Your task to perform on an android device: find photos in the google photos app Image 0: 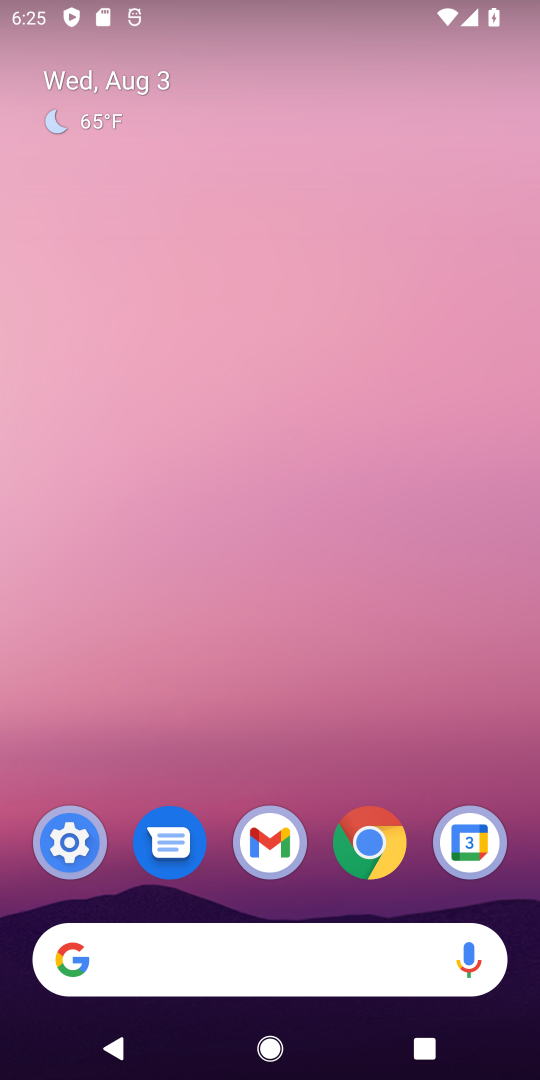
Step 0: drag from (238, 427) to (324, 121)
Your task to perform on an android device: find photos in the google photos app Image 1: 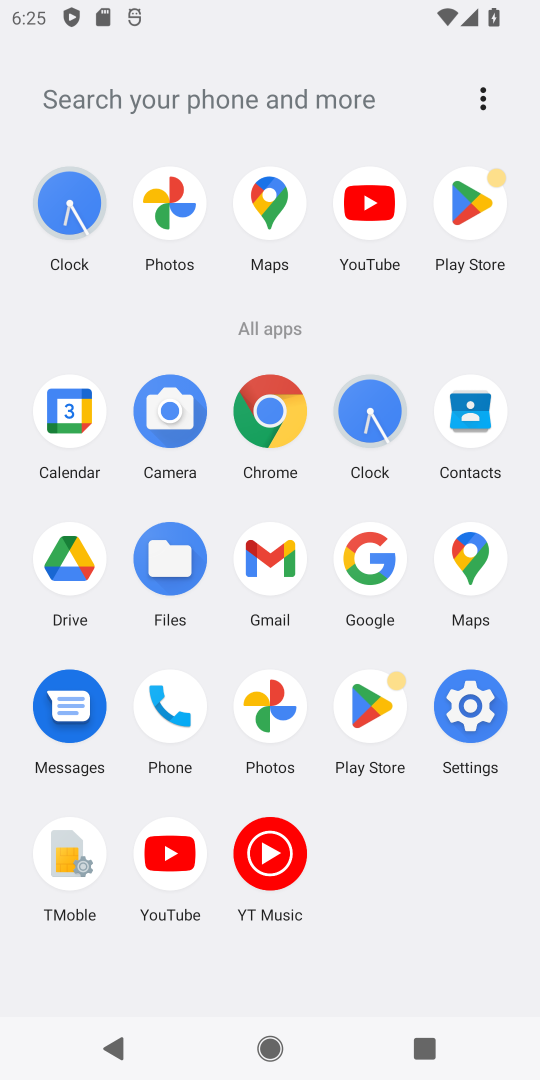
Step 1: click (241, 718)
Your task to perform on an android device: find photos in the google photos app Image 2: 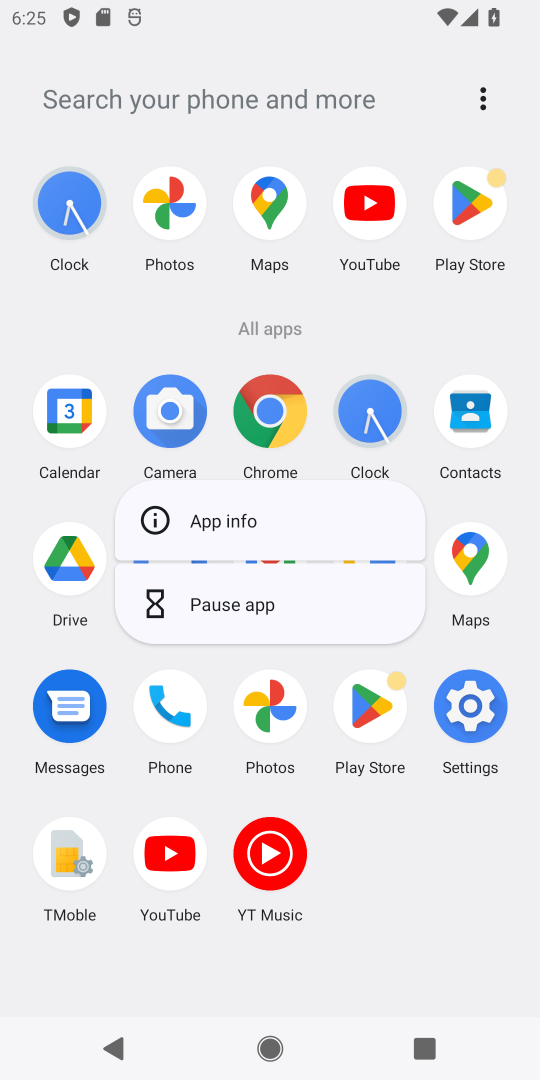
Step 2: click (241, 718)
Your task to perform on an android device: find photos in the google photos app Image 3: 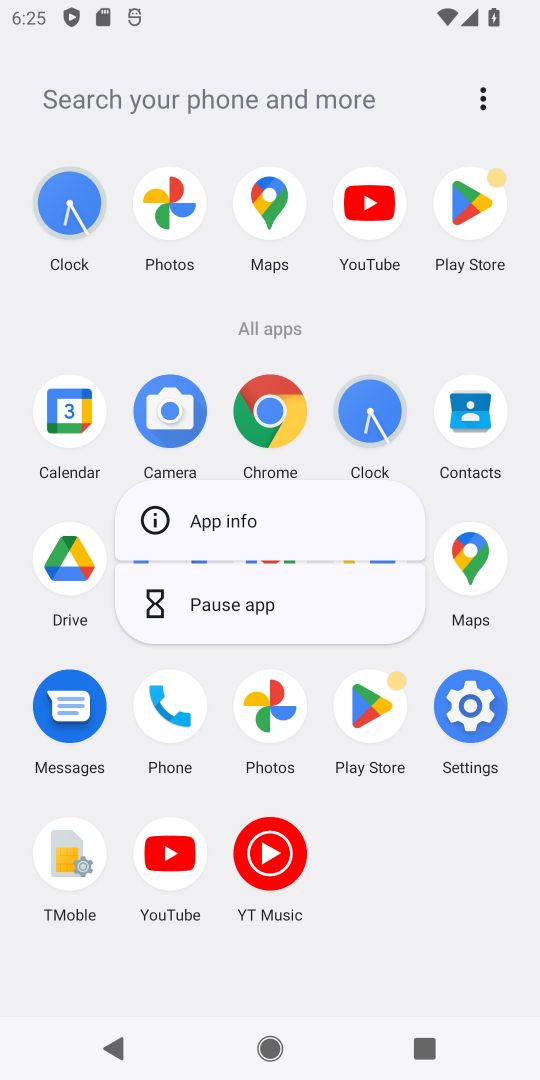
Step 3: click (241, 718)
Your task to perform on an android device: find photos in the google photos app Image 4: 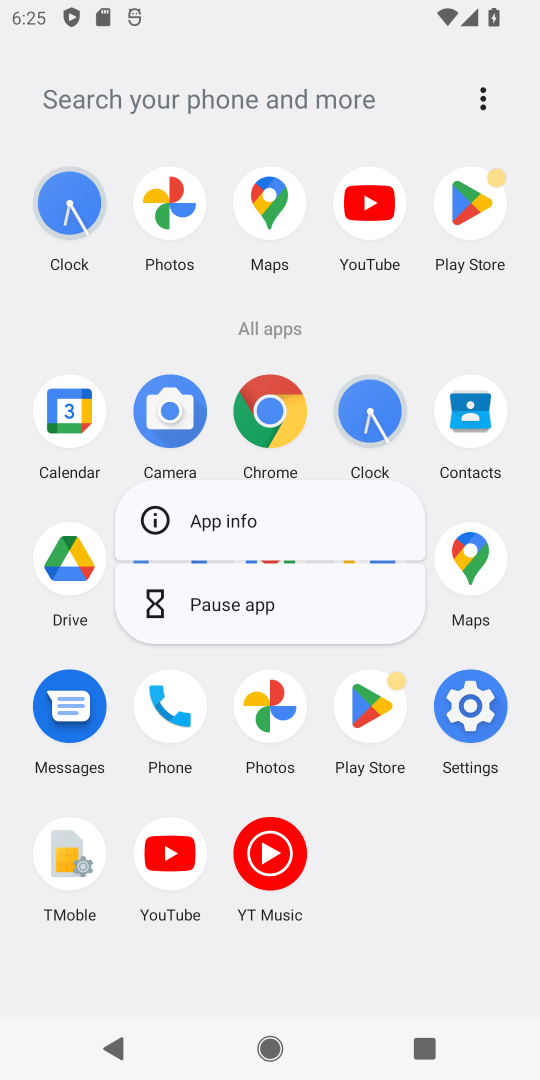
Step 4: click (253, 737)
Your task to perform on an android device: find photos in the google photos app Image 5: 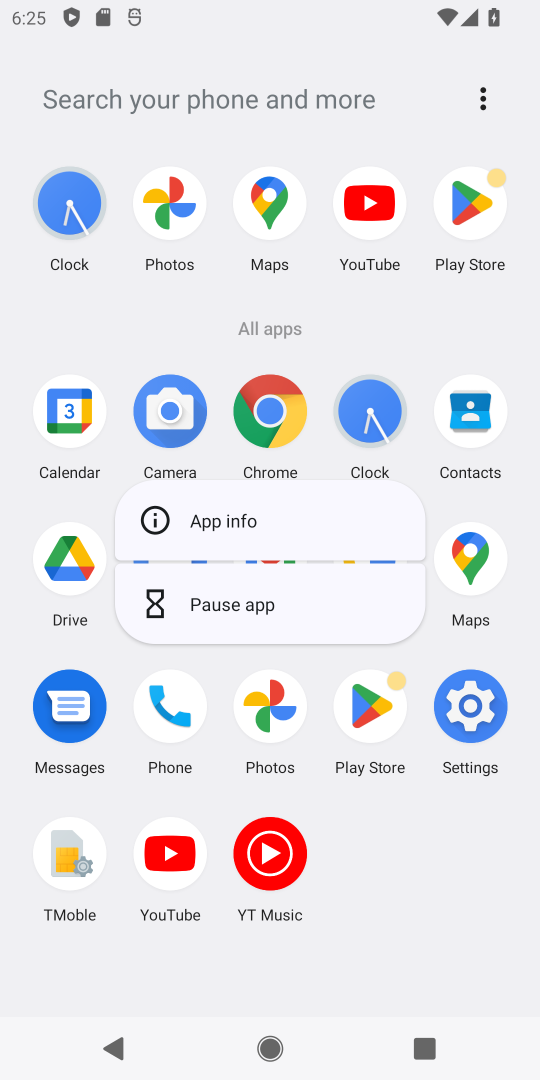
Step 5: click (252, 724)
Your task to perform on an android device: find photos in the google photos app Image 6: 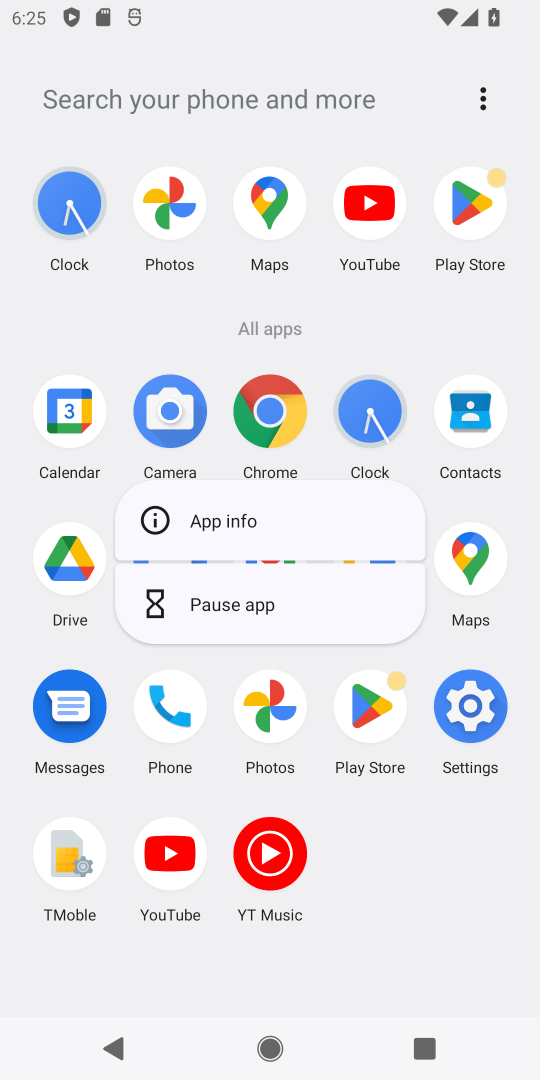
Step 6: click (252, 724)
Your task to perform on an android device: find photos in the google photos app Image 7: 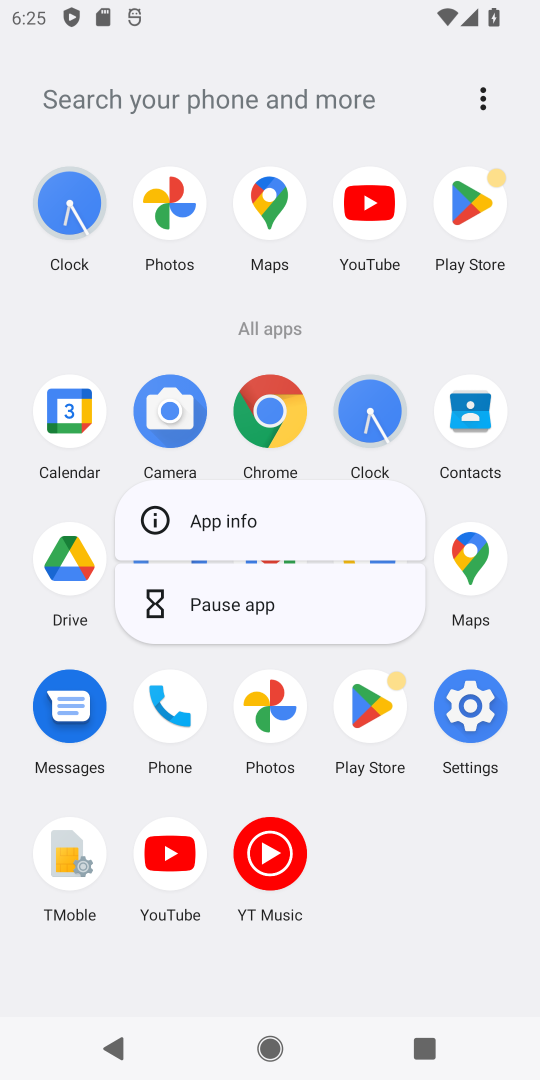
Step 7: click (272, 718)
Your task to perform on an android device: find photos in the google photos app Image 8: 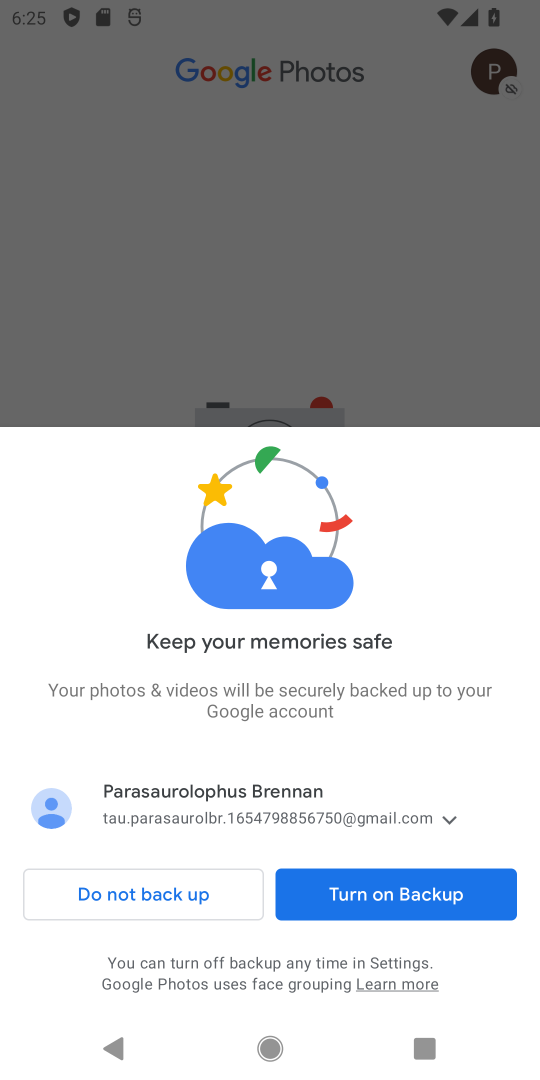
Step 8: click (432, 274)
Your task to perform on an android device: find photos in the google photos app Image 9: 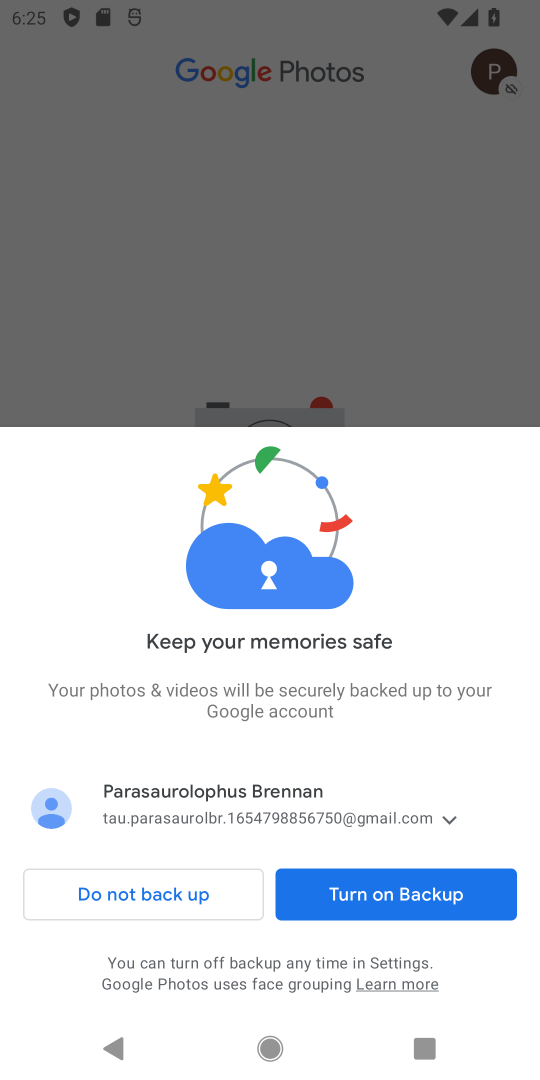
Step 9: click (138, 899)
Your task to perform on an android device: find photos in the google photos app Image 10: 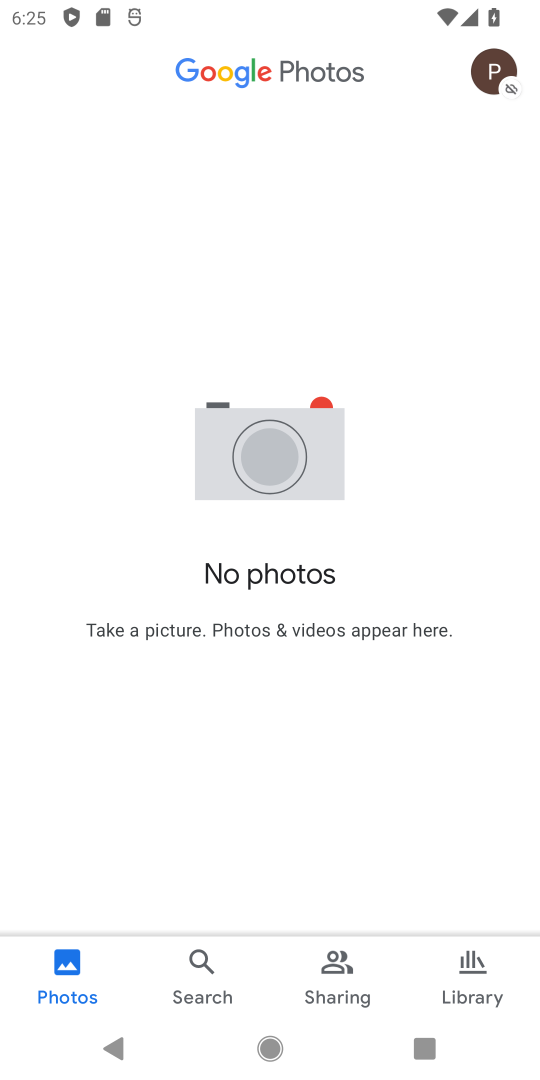
Step 10: click (197, 973)
Your task to perform on an android device: find photos in the google photos app Image 11: 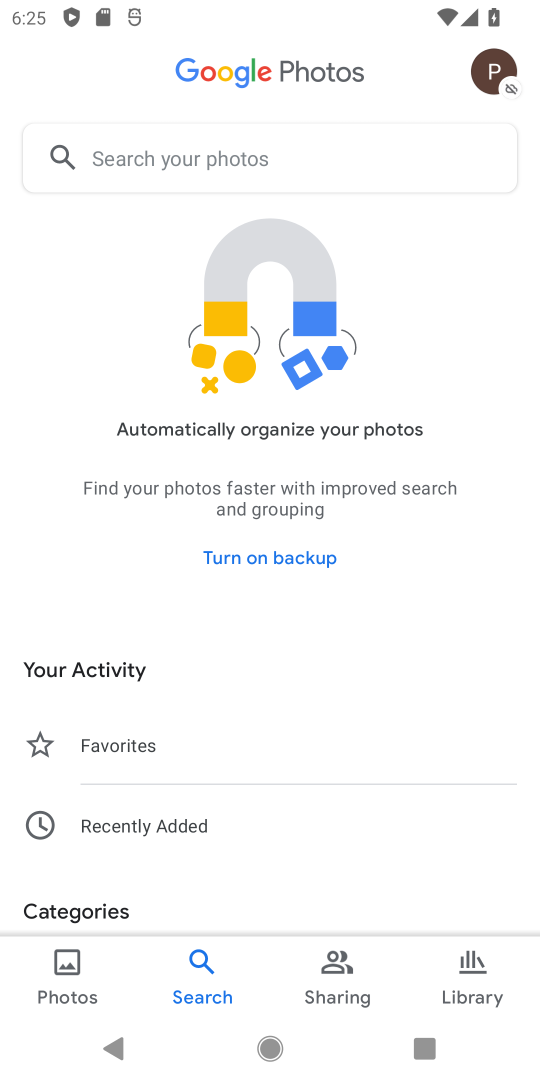
Step 11: task complete